Your task to perform on an android device: Go to Maps Image 0: 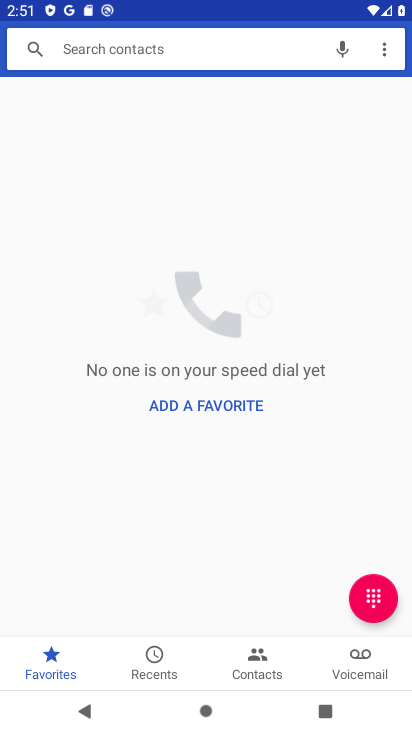
Step 0: press home button
Your task to perform on an android device: Go to Maps Image 1: 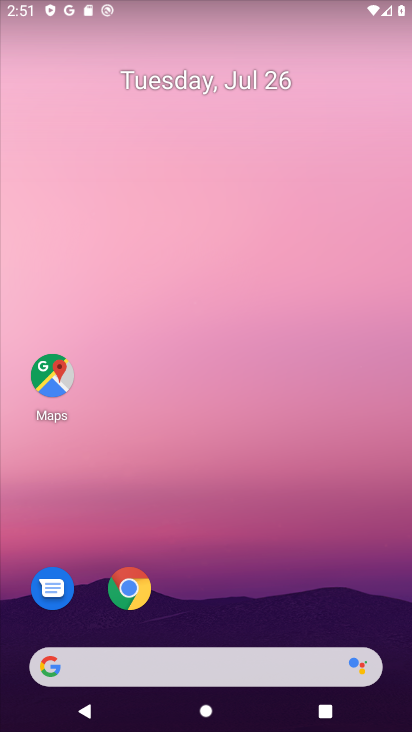
Step 1: click (53, 366)
Your task to perform on an android device: Go to Maps Image 2: 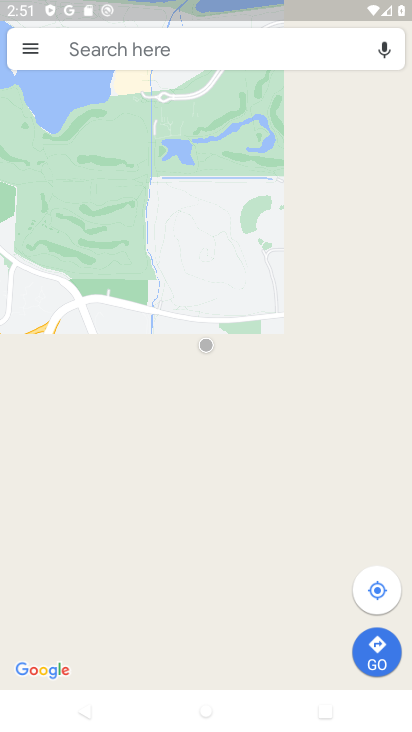
Step 2: task complete